Your task to perform on an android device: check android version Image 0: 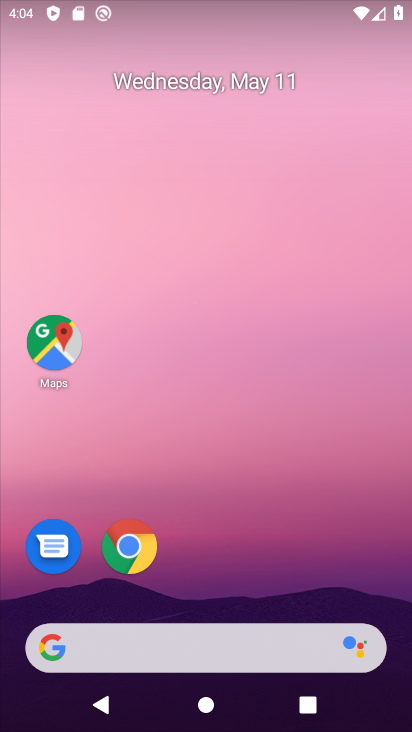
Step 0: drag from (227, 622) to (211, 116)
Your task to perform on an android device: check android version Image 1: 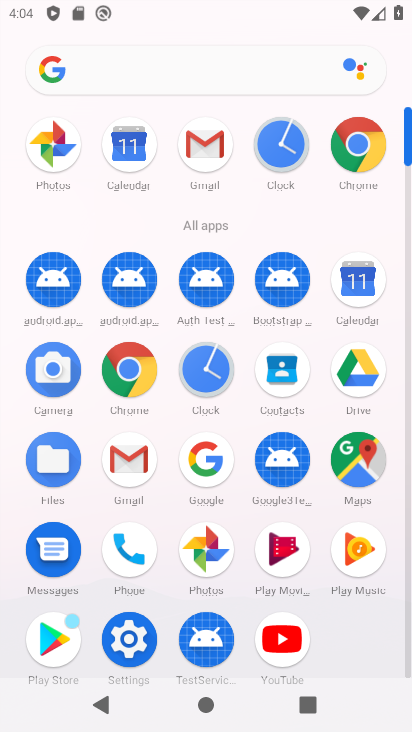
Step 1: click (122, 645)
Your task to perform on an android device: check android version Image 2: 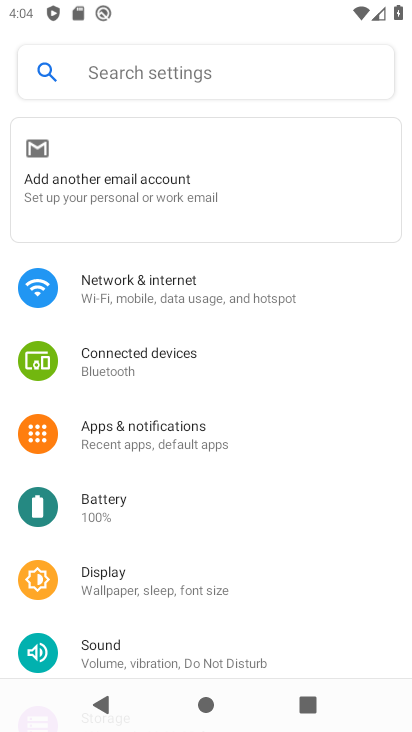
Step 2: drag from (188, 653) to (186, 244)
Your task to perform on an android device: check android version Image 3: 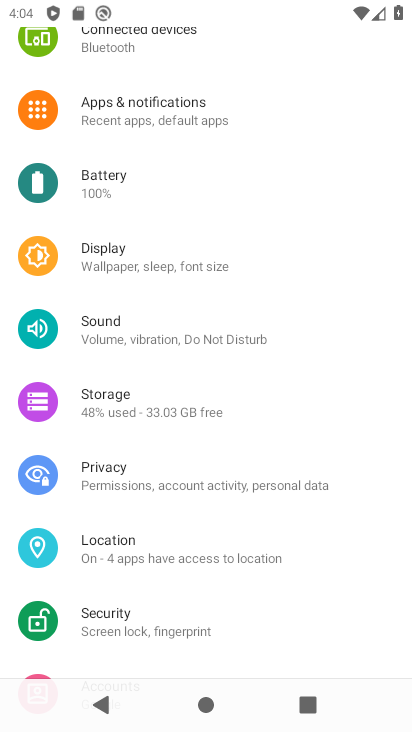
Step 3: drag from (167, 634) to (167, 288)
Your task to perform on an android device: check android version Image 4: 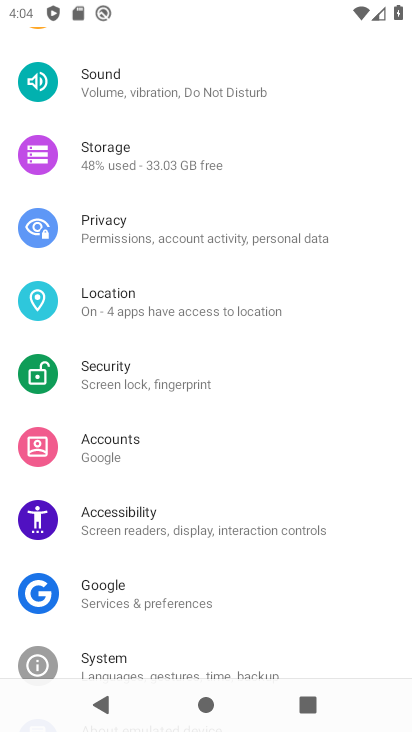
Step 4: drag from (131, 635) to (130, 330)
Your task to perform on an android device: check android version Image 5: 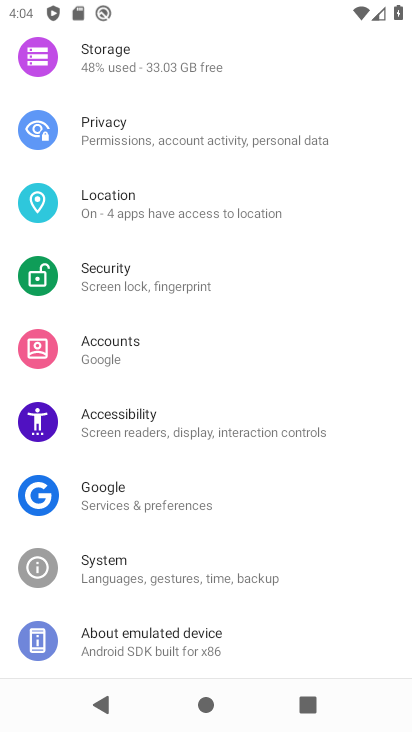
Step 5: drag from (143, 642) to (151, 393)
Your task to perform on an android device: check android version Image 6: 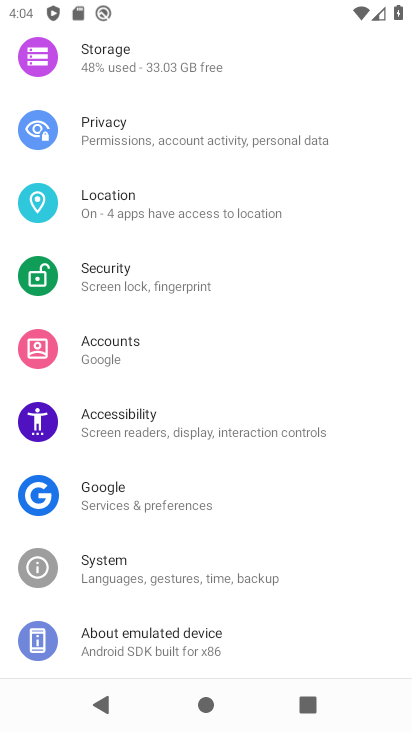
Step 6: click (140, 645)
Your task to perform on an android device: check android version Image 7: 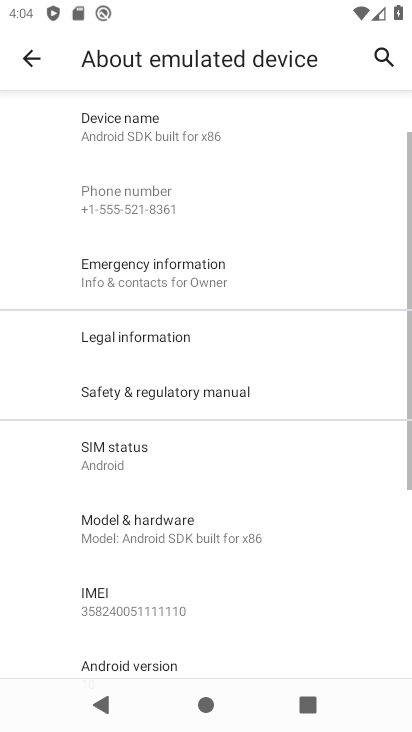
Step 7: click (133, 664)
Your task to perform on an android device: check android version Image 8: 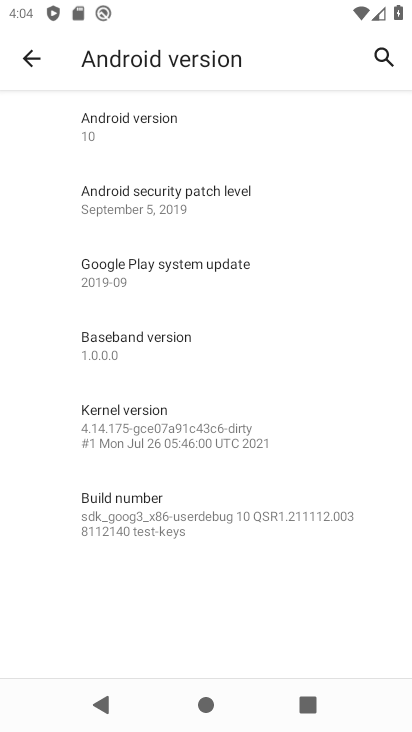
Step 8: task complete